Your task to perform on an android device: Open calendar and show me the fourth week of next month Image 0: 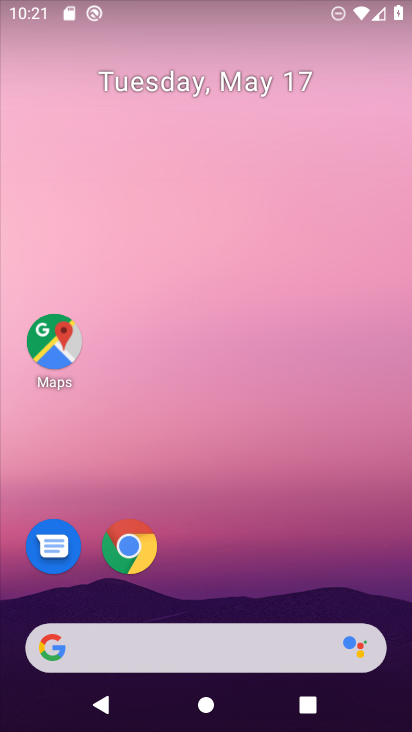
Step 0: drag from (348, 535) to (363, 83)
Your task to perform on an android device: Open calendar and show me the fourth week of next month Image 1: 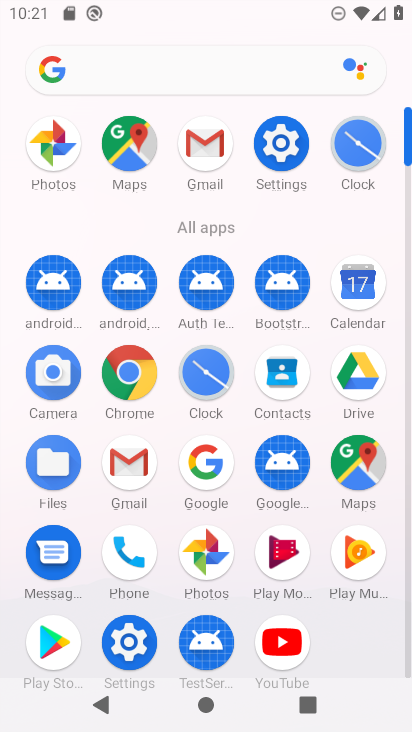
Step 1: click (349, 291)
Your task to perform on an android device: Open calendar and show me the fourth week of next month Image 2: 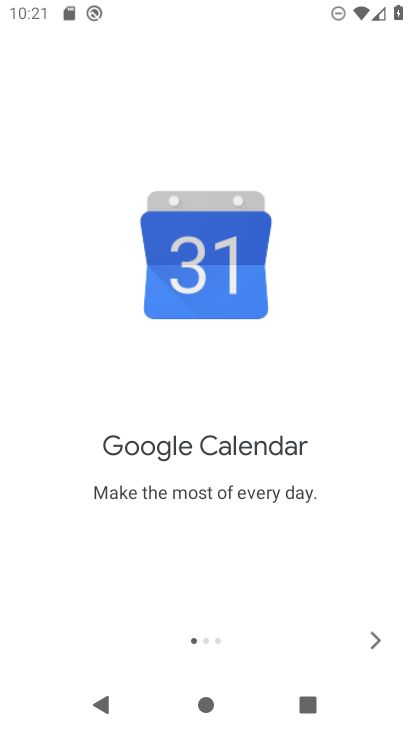
Step 2: click (378, 644)
Your task to perform on an android device: Open calendar and show me the fourth week of next month Image 3: 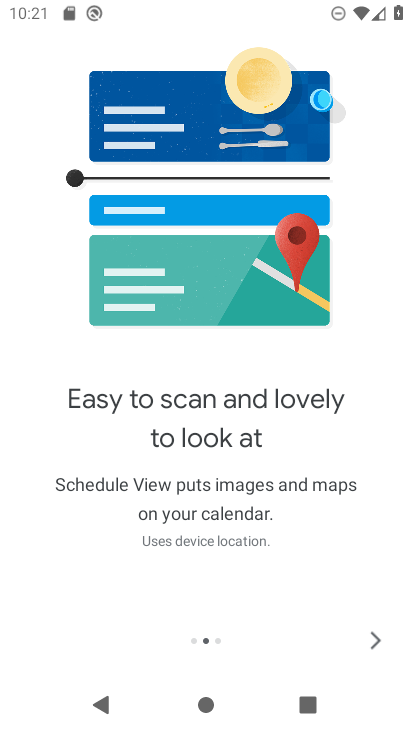
Step 3: click (378, 644)
Your task to perform on an android device: Open calendar and show me the fourth week of next month Image 4: 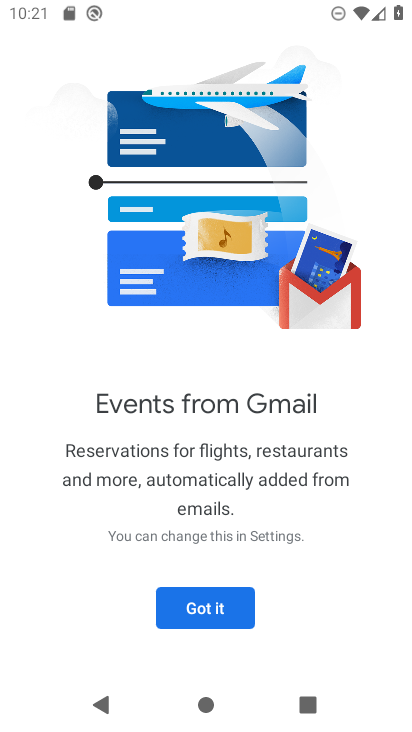
Step 4: click (215, 609)
Your task to perform on an android device: Open calendar and show me the fourth week of next month Image 5: 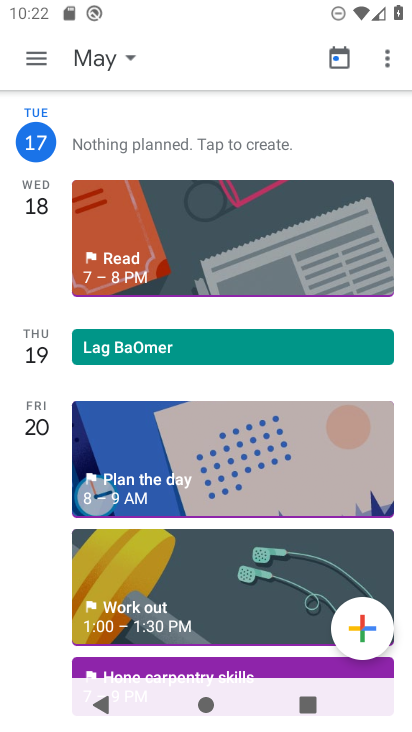
Step 5: click (28, 59)
Your task to perform on an android device: Open calendar and show me the fourth week of next month Image 6: 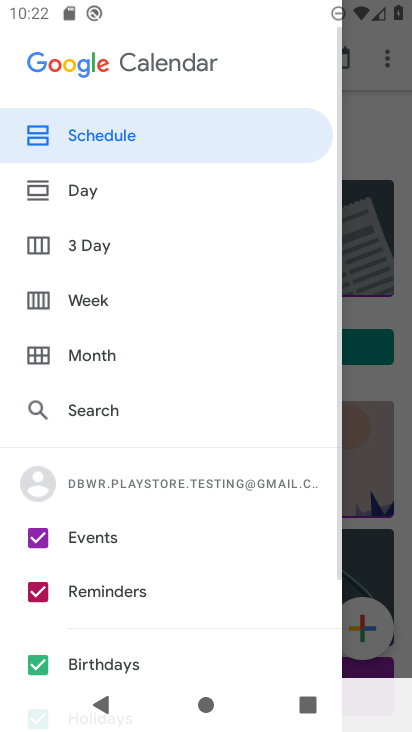
Step 6: click (84, 307)
Your task to perform on an android device: Open calendar and show me the fourth week of next month Image 7: 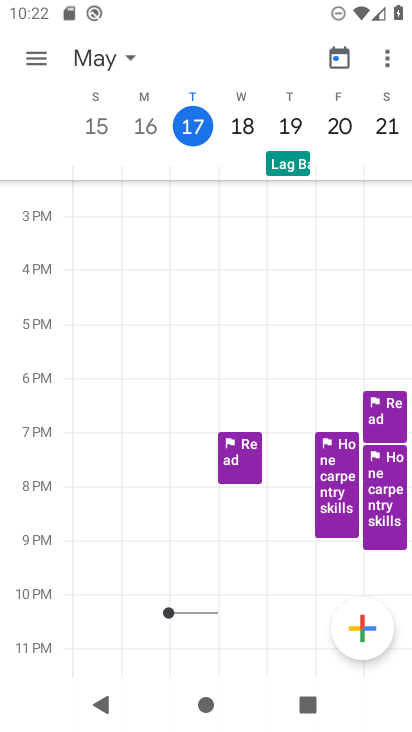
Step 7: click (128, 48)
Your task to perform on an android device: Open calendar and show me the fourth week of next month Image 8: 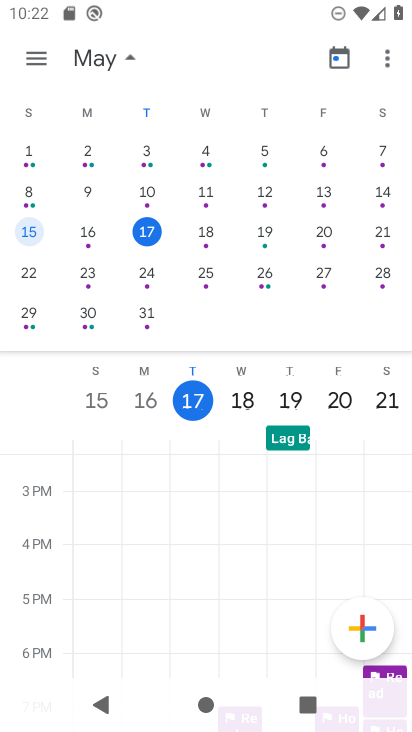
Step 8: task complete